Your task to perform on an android device: Go to Android settings Image 0: 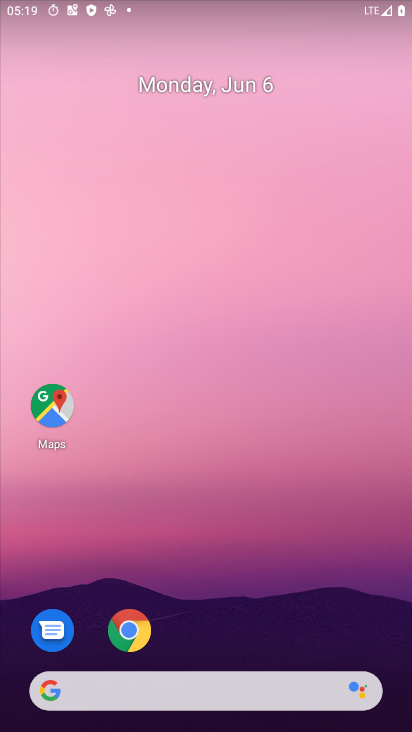
Step 0: drag from (225, 613) to (244, 14)
Your task to perform on an android device: Go to Android settings Image 1: 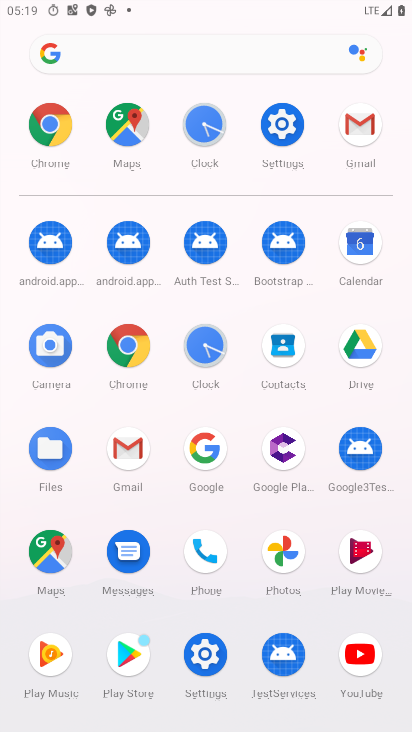
Step 1: click (201, 643)
Your task to perform on an android device: Go to Android settings Image 2: 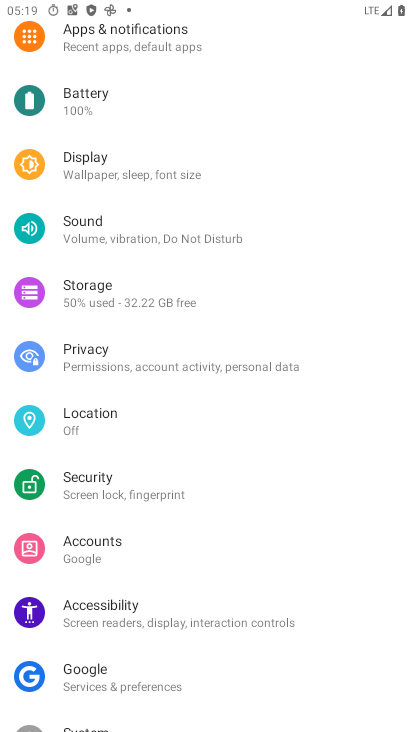
Step 2: drag from (193, 639) to (216, 192)
Your task to perform on an android device: Go to Android settings Image 3: 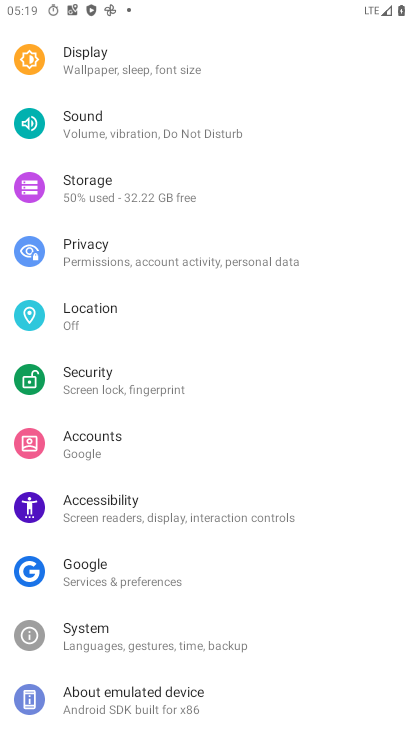
Step 3: click (124, 697)
Your task to perform on an android device: Go to Android settings Image 4: 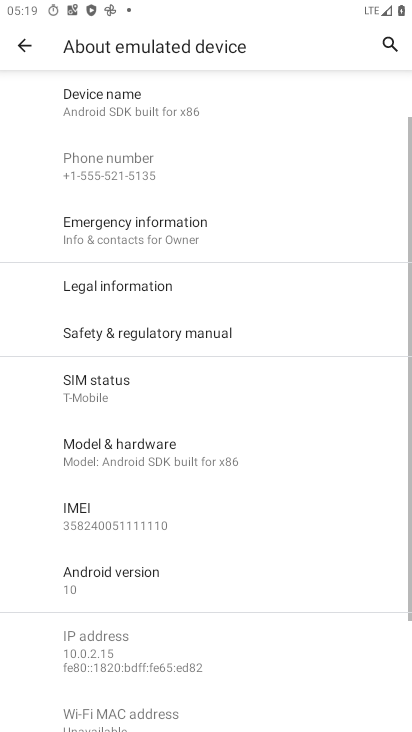
Step 4: click (94, 572)
Your task to perform on an android device: Go to Android settings Image 5: 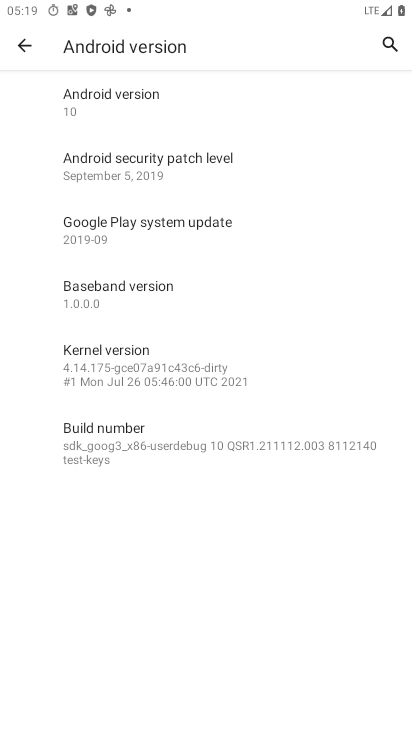
Step 5: task complete